Your task to perform on an android device: turn on the 12-hour format for clock Image 0: 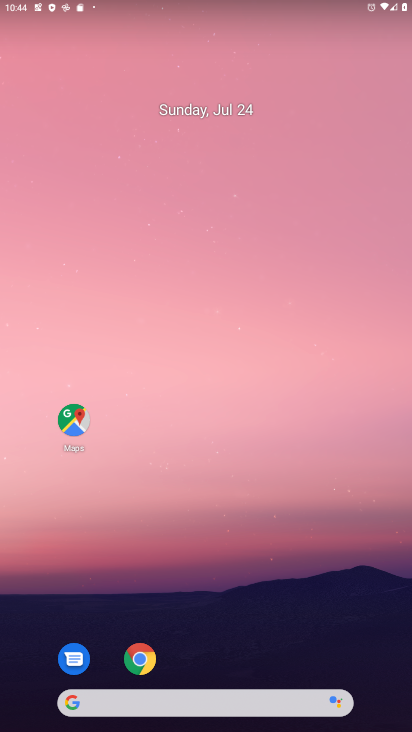
Step 0: drag from (383, 719) to (358, 281)
Your task to perform on an android device: turn on the 12-hour format for clock Image 1: 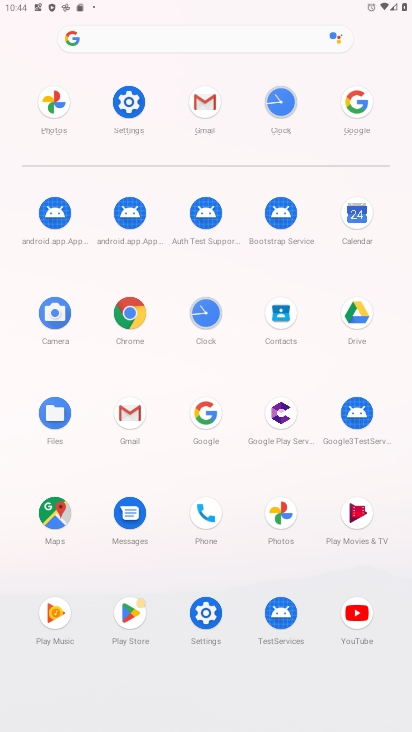
Step 1: click (121, 106)
Your task to perform on an android device: turn on the 12-hour format for clock Image 2: 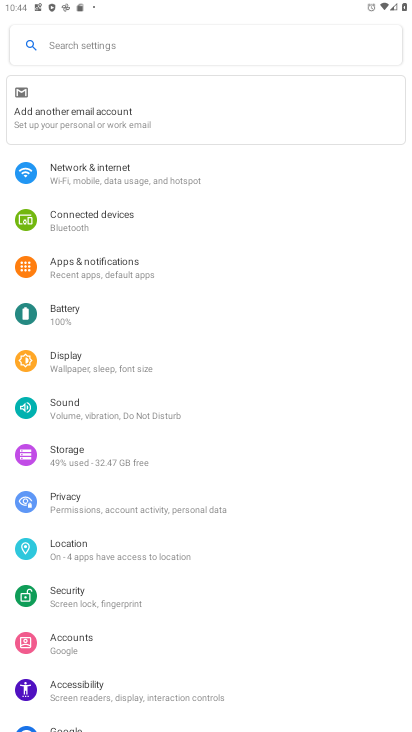
Step 2: press back button
Your task to perform on an android device: turn on the 12-hour format for clock Image 3: 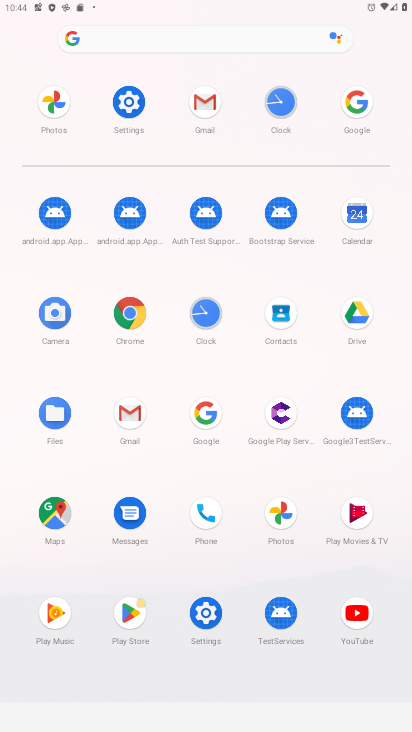
Step 3: click (205, 305)
Your task to perform on an android device: turn on the 12-hour format for clock Image 4: 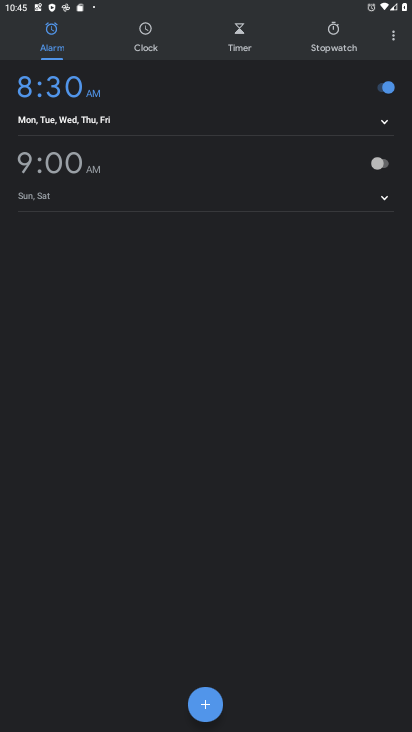
Step 4: click (389, 35)
Your task to perform on an android device: turn on the 12-hour format for clock Image 5: 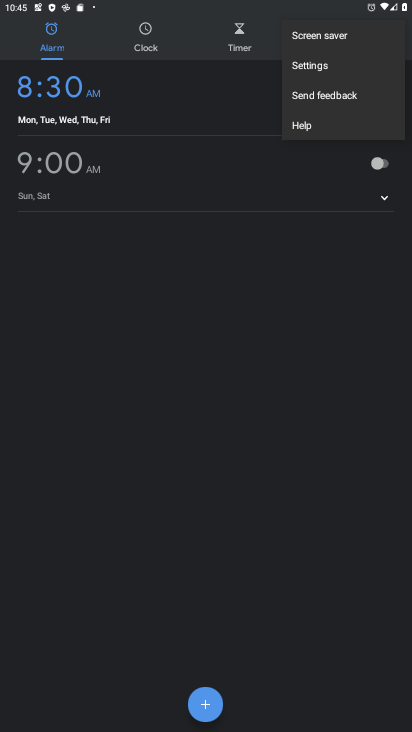
Step 5: click (311, 59)
Your task to perform on an android device: turn on the 12-hour format for clock Image 6: 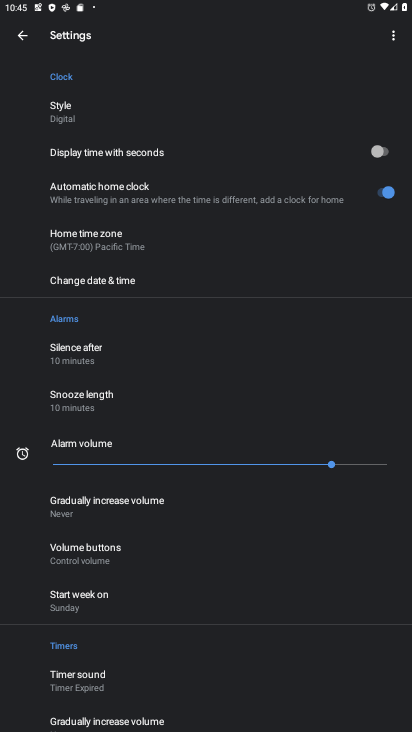
Step 6: click (119, 271)
Your task to perform on an android device: turn on the 12-hour format for clock Image 7: 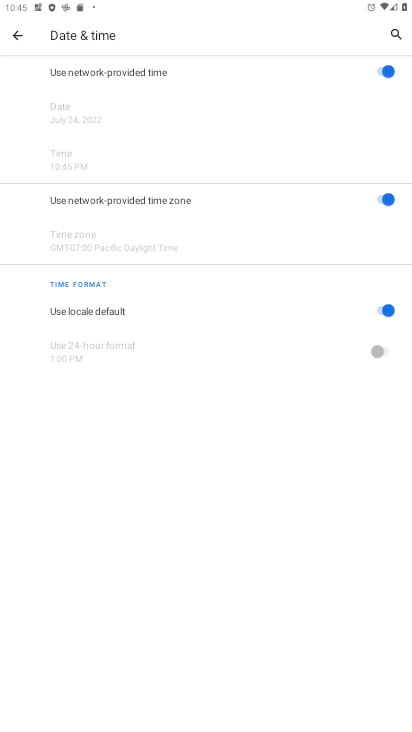
Step 7: task complete